Your task to perform on an android device: star an email in the gmail app Image 0: 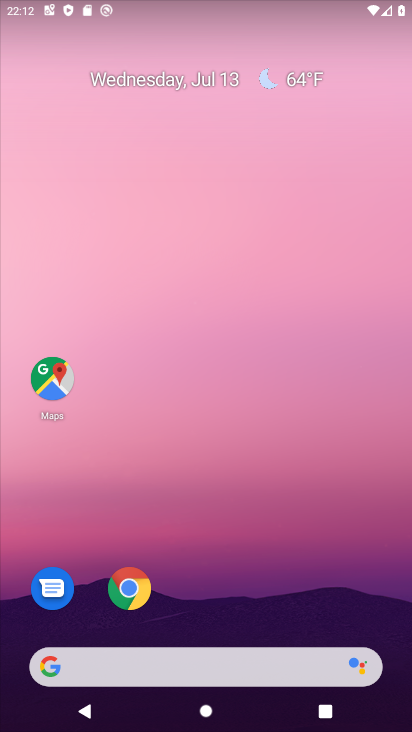
Step 0: drag from (191, 626) to (262, 66)
Your task to perform on an android device: star an email in the gmail app Image 1: 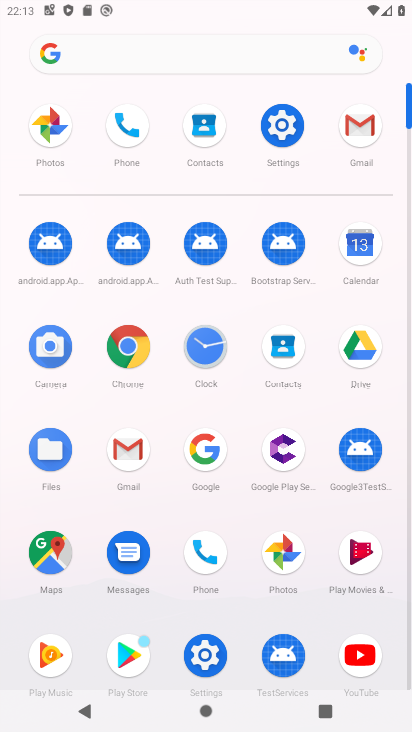
Step 1: click (356, 121)
Your task to perform on an android device: star an email in the gmail app Image 2: 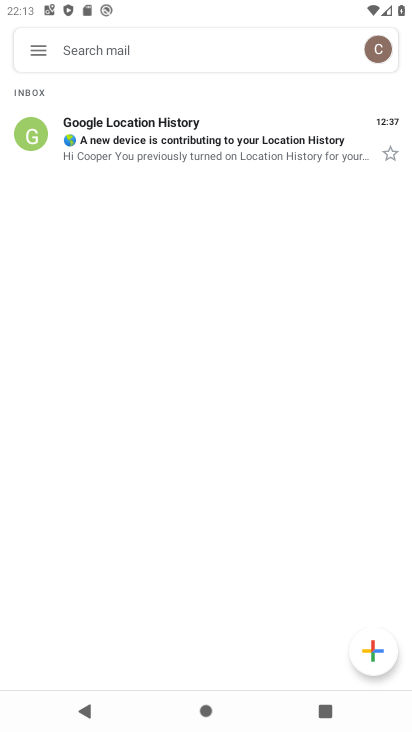
Step 2: click (35, 52)
Your task to perform on an android device: star an email in the gmail app Image 3: 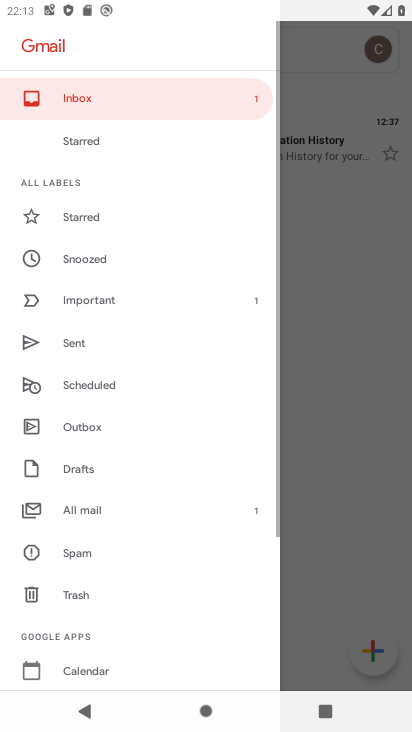
Step 3: click (326, 251)
Your task to perform on an android device: star an email in the gmail app Image 4: 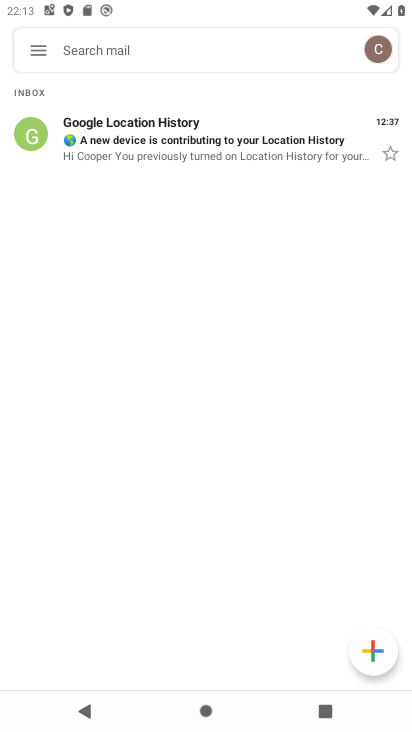
Step 4: click (389, 153)
Your task to perform on an android device: star an email in the gmail app Image 5: 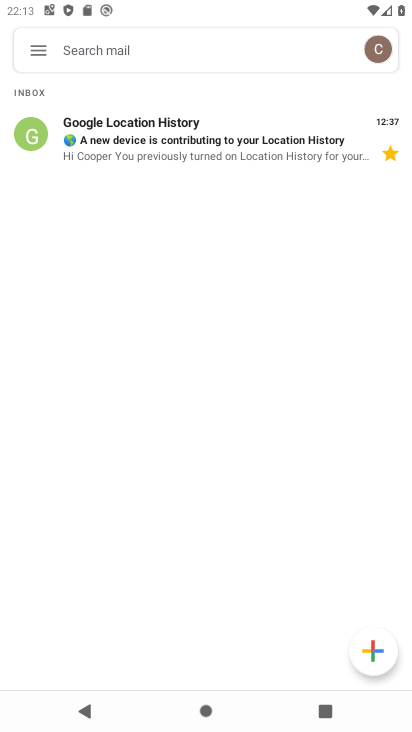
Step 5: task complete